Your task to perform on an android device: turn on translation in the chrome app Image 0: 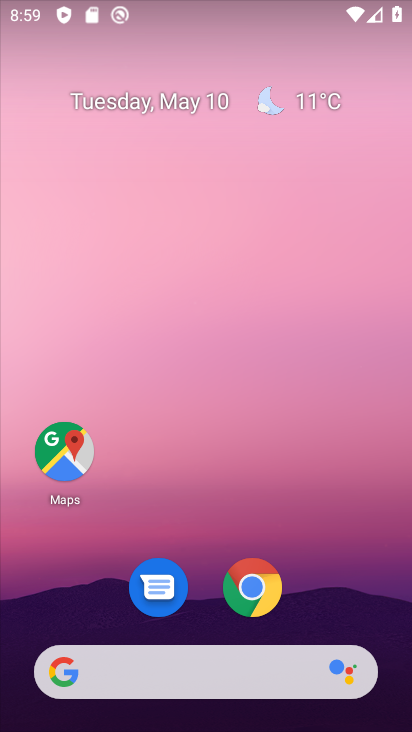
Step 0: click (260, 588)
Your task to perform on an android device: turn on translation in the chrome app Image 1: 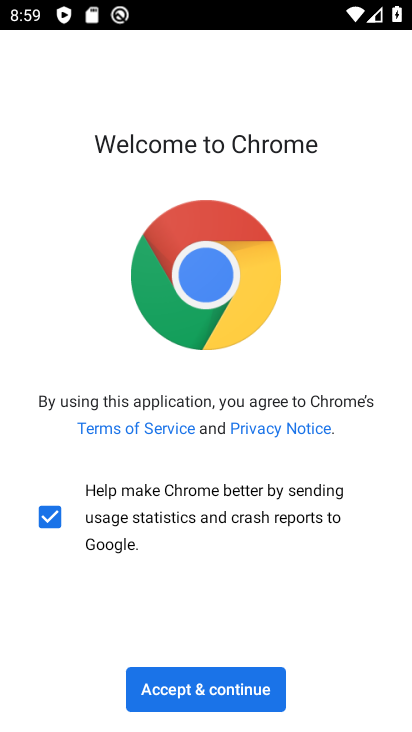
Step 1: click (203, 681)
Your task to perform on an android device: turn on translation in the chrome app Image 2: 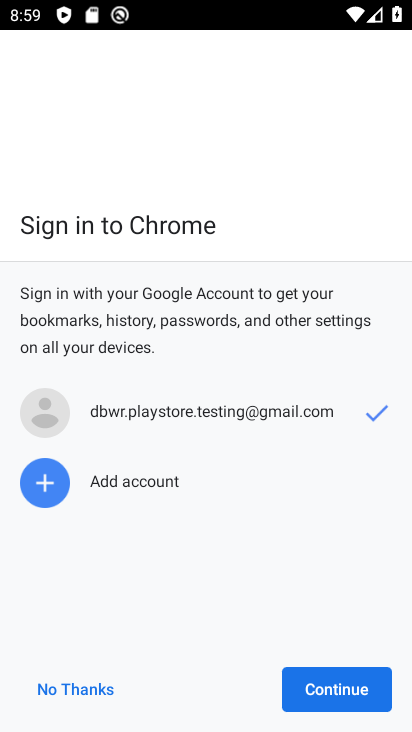
Step 2: click (328, 696)
Your task to perform on an android device: turn on translation in the chrome app Image 3: 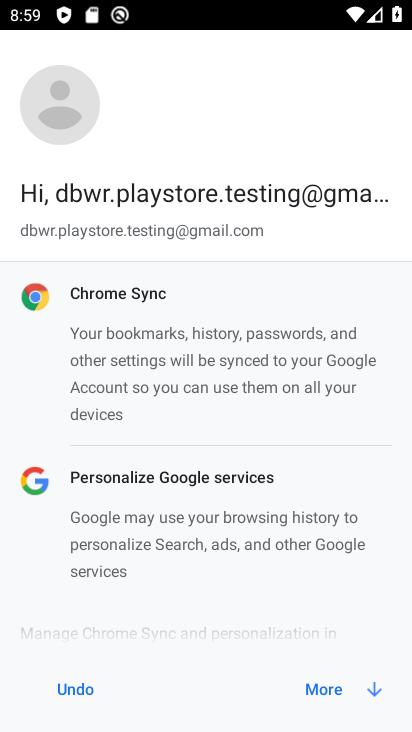
Step 3: click (328, 696)
Your task to perform on an android device: turn on translation in the chrome app Image 4: 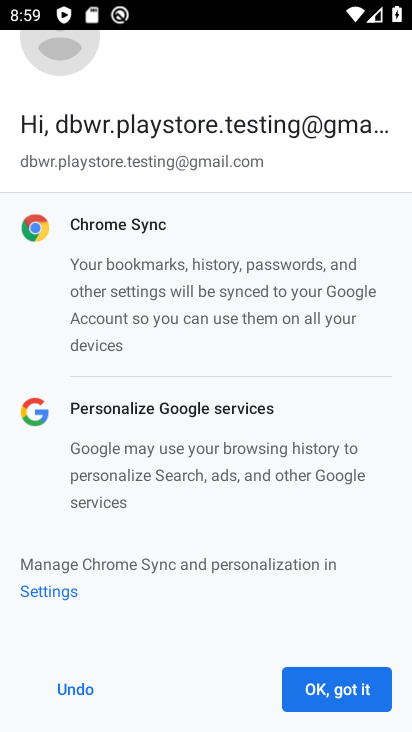
Step 4: click (328, 696)
Your task to perform on an android device: turn on translation in the chrome app Image 5: 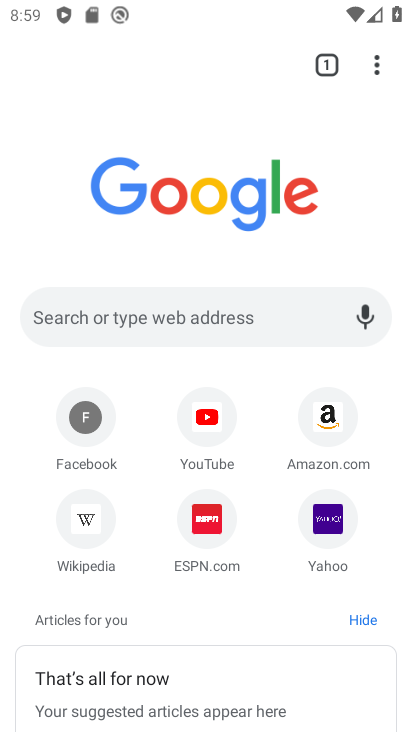
Step 5: click (367, 51)
Your task to perform on an android device: turn on translation in the chrome app Image 6: 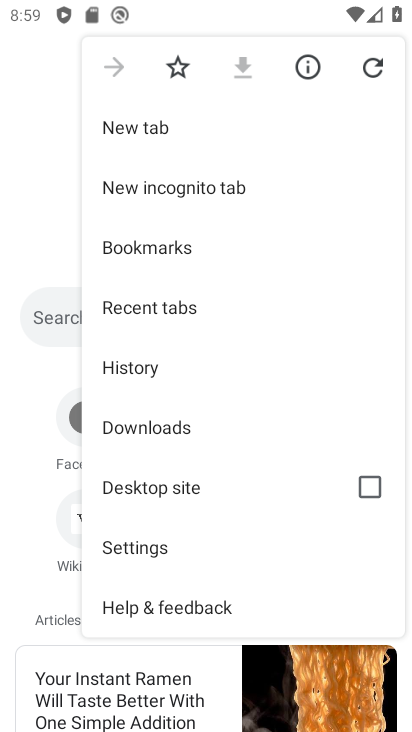
Step 6: click (167, 555)
Your task to perform on an android device: turn on translation in the chrome app Image 7: 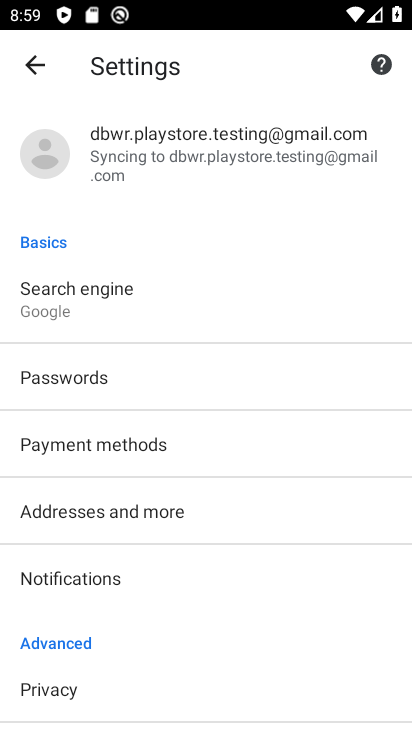
Step 7: drag from (125, 648) to (189, 103)
Your task to perform on an android device: turn on translation in the chrome app Image 8: 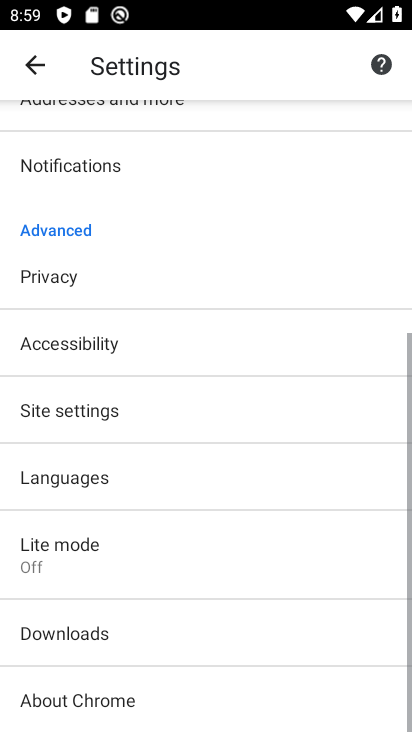
Step 8: click (88, 459)
Your task to perform on an android device: turn on translation in the chrome app Image 9: 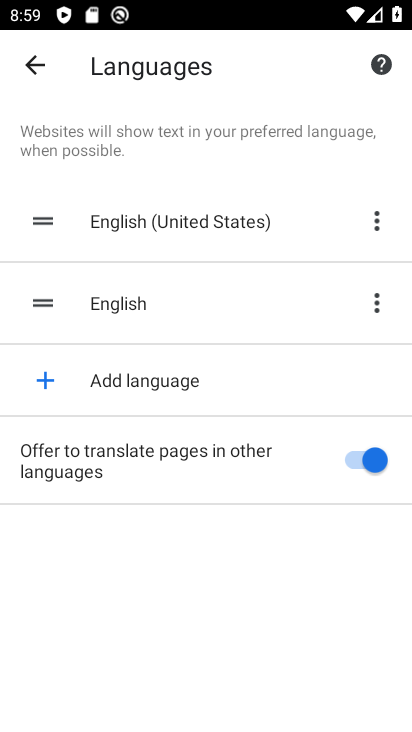
Step 9: task complete